Your task to perform on an android device: turn pop-ups off in chrome Image 0: 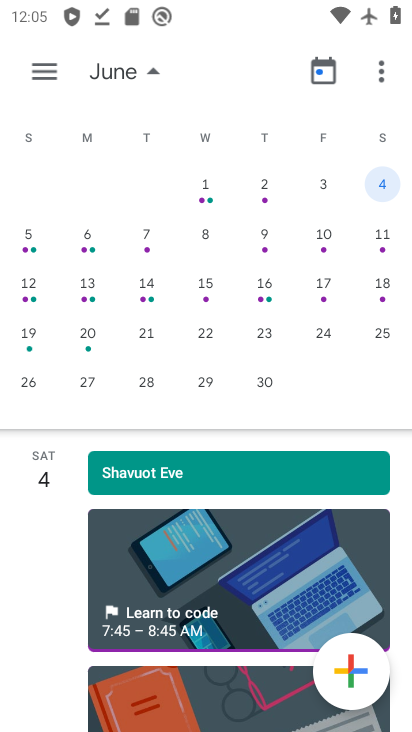
Step 0: press home button
Your task to perform on an android device: turn pop-ups off in chrome Image 1: 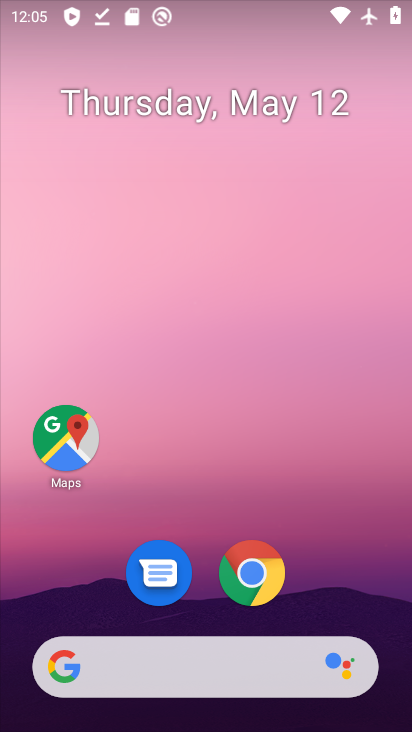
Step 1: click (260, 577)
Your task to perform on an android device: turn pop-ups off in chrome Image 2: 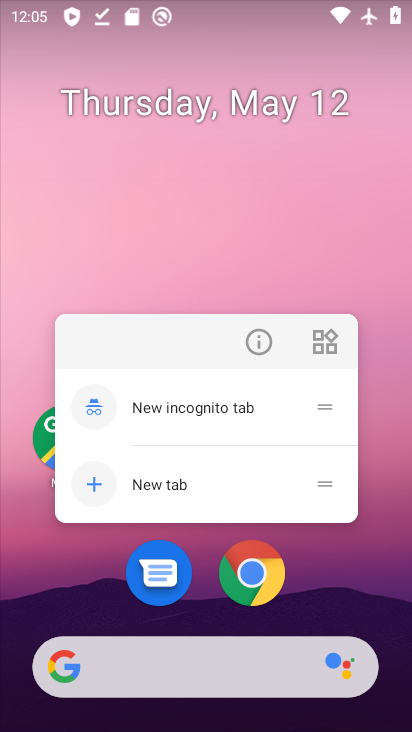
Step 2: click (255, 594)
Your task to perform on an android device: turn pop-ups off in chrome Image 3: 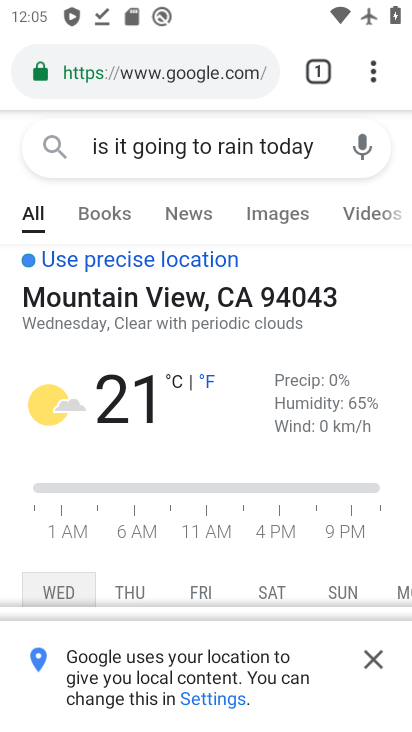
Step 3: drag from (370, 76) to (251, 570)
Your task to perform on an android device: turn pop-ups off in chrome Image 4: 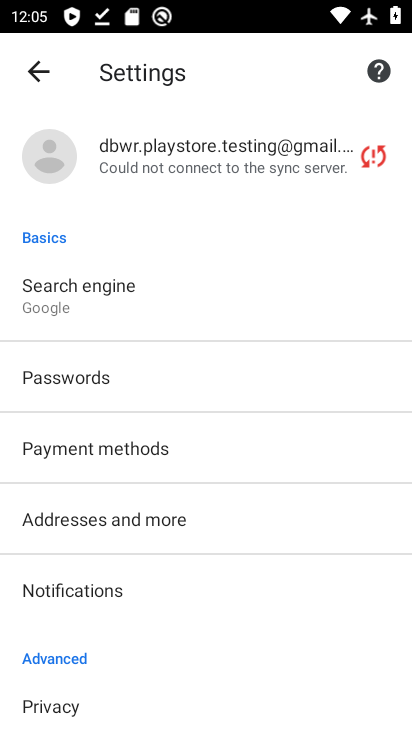
Step 4: drag from (250, 605) to (272, 176)
Your task to perform on an android device: turn pop-ups off in chrome Image 5: 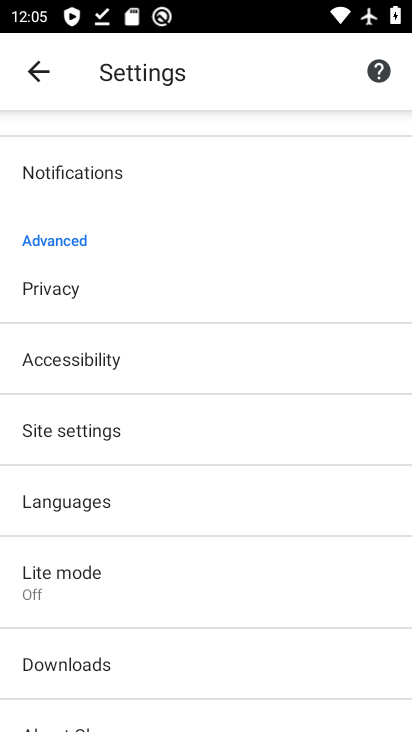
Step 5: click (96, 443)
Your task to perform on an android device: turn pop-ups off in chrome Image 6: 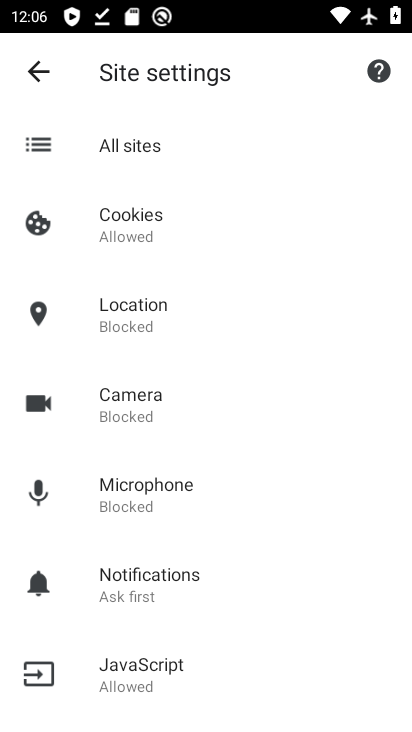
Step 6: drag from (232, 641) to (247, 277)
Your task to perform on an android device: turn pop-ups off in chrome Image 7: 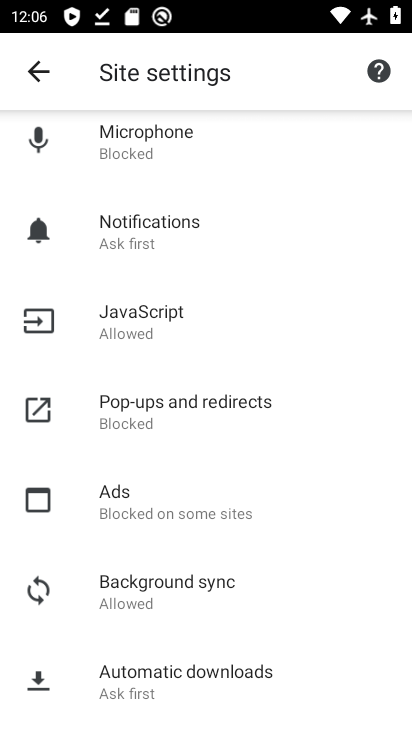
Step 7: click (226, 413)
Your task to perform on an android device: turn pop-ups off in chrome Image 8: 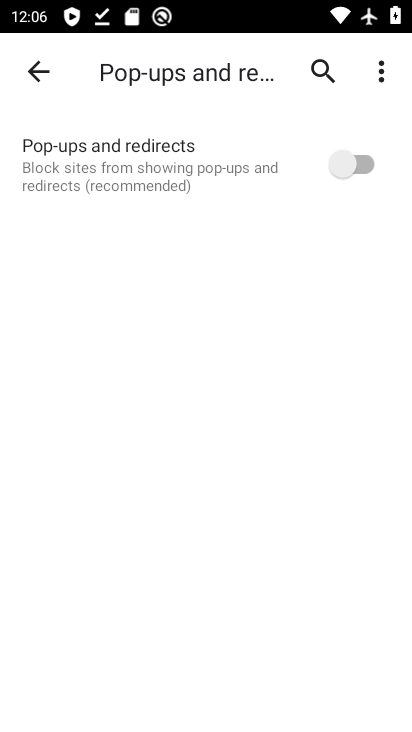
Step 8: task complete